Your task to perform on an android device: Add "logitech g903" to the cart on target Image 0: 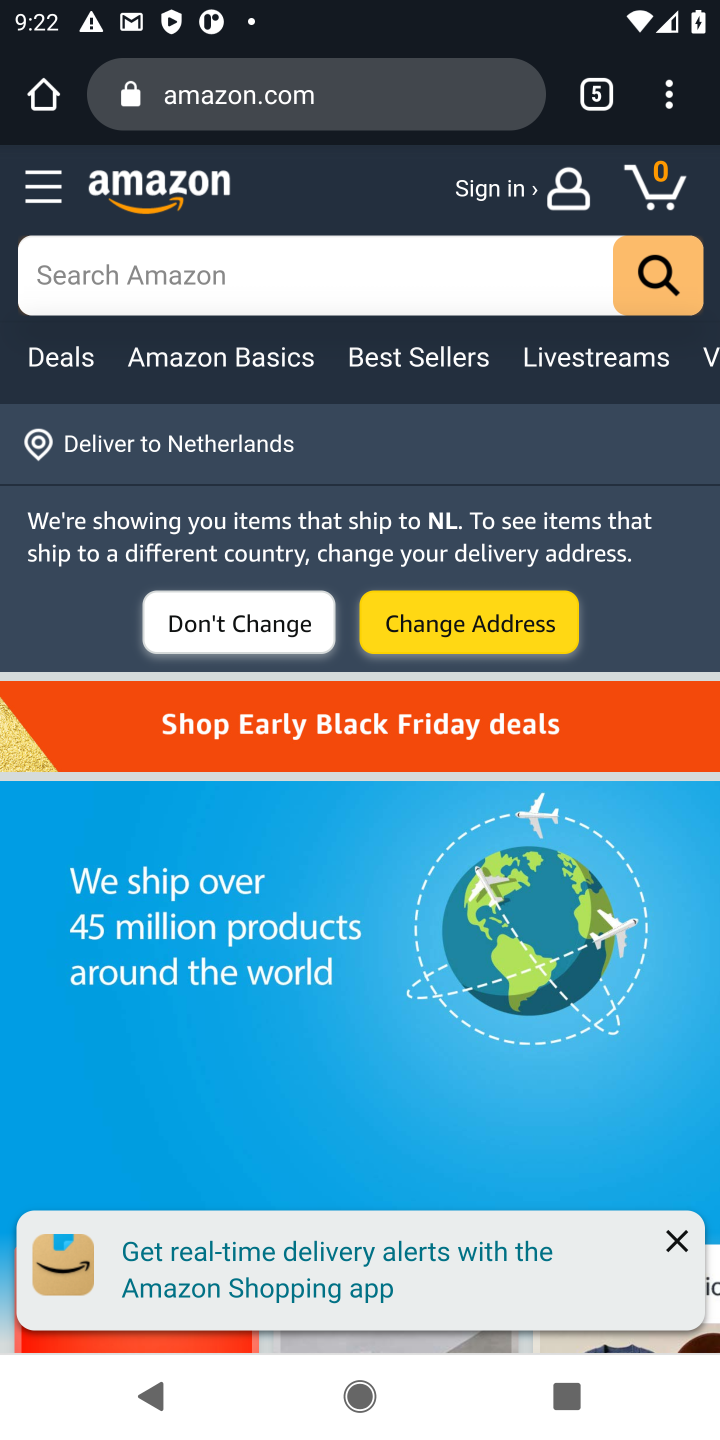
Step 0: press home button
Your task to perform on an android device: Add "logitech g903" to the cart on target Image 1: 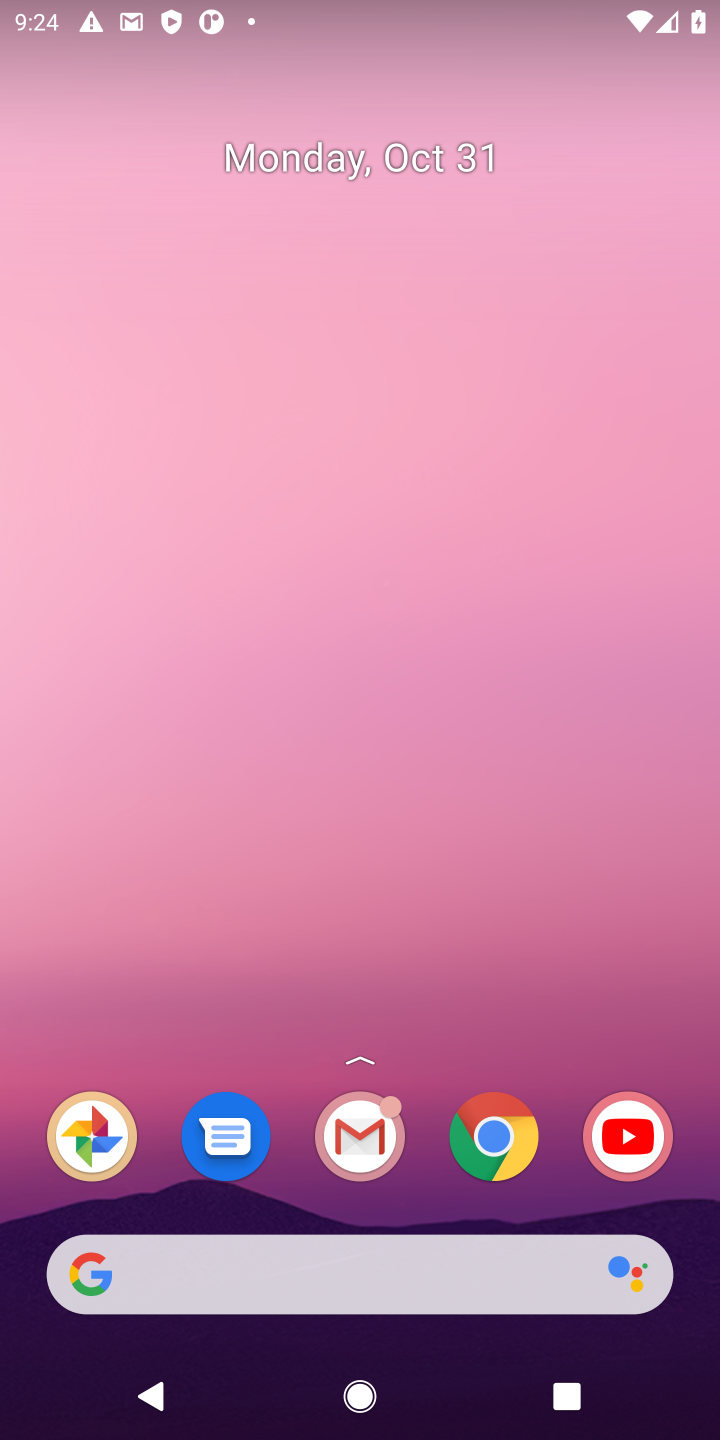
Step 1: click (84, 1275)
Your task to perform on an android device: Add "logitech g903" to the cart on target Image 2: 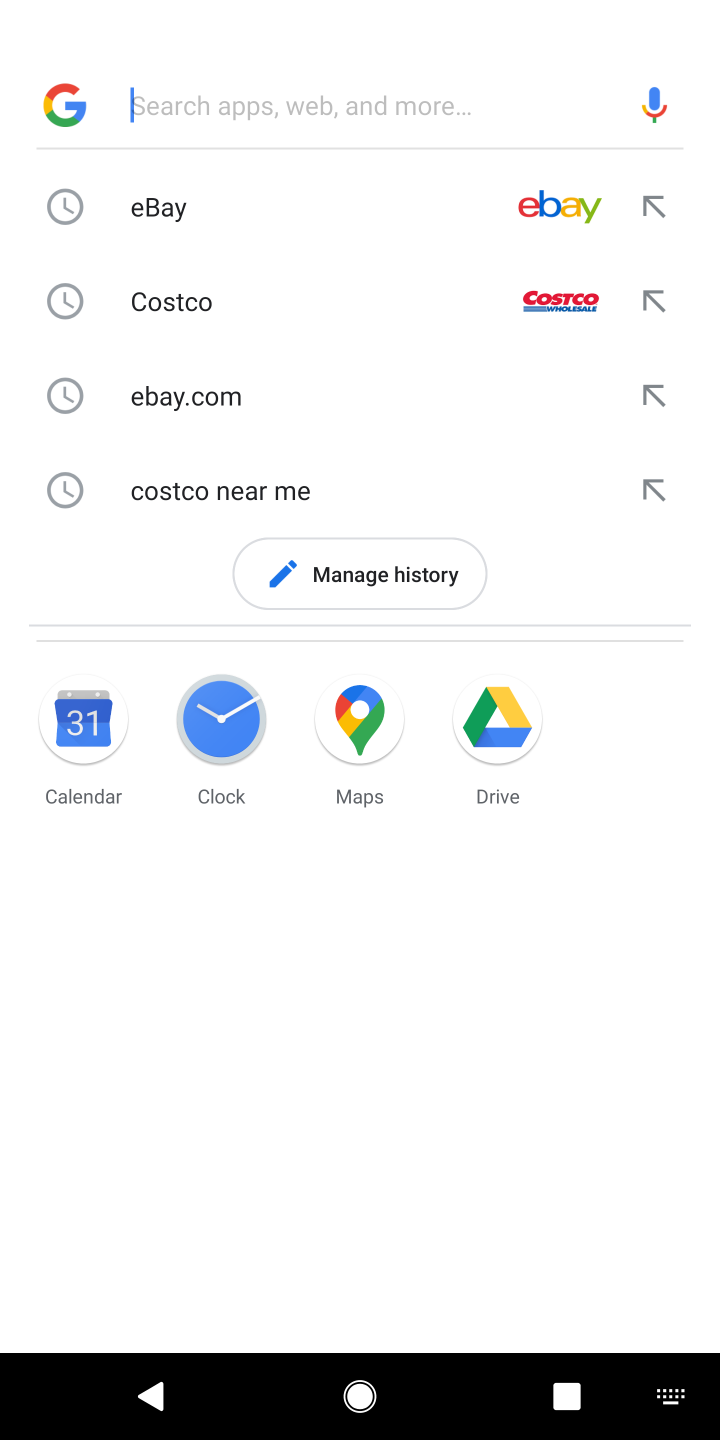
Step 2: type "target"
Your task to perform on an android device: Add "logitech g903" to the cart on target Image 3: 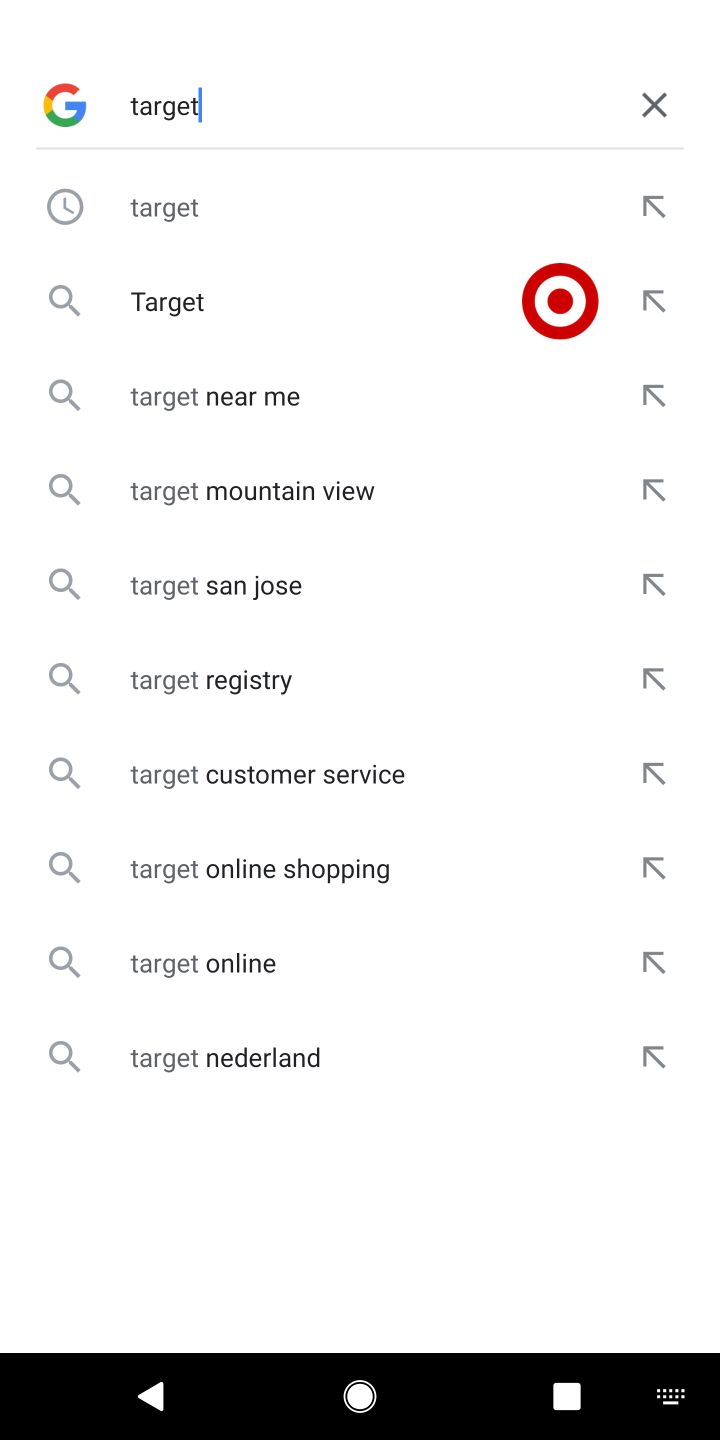
Step 3: click (192, 198)
Your task to perform on an android device: Add "logitech g903" to the cart on target Image 4: 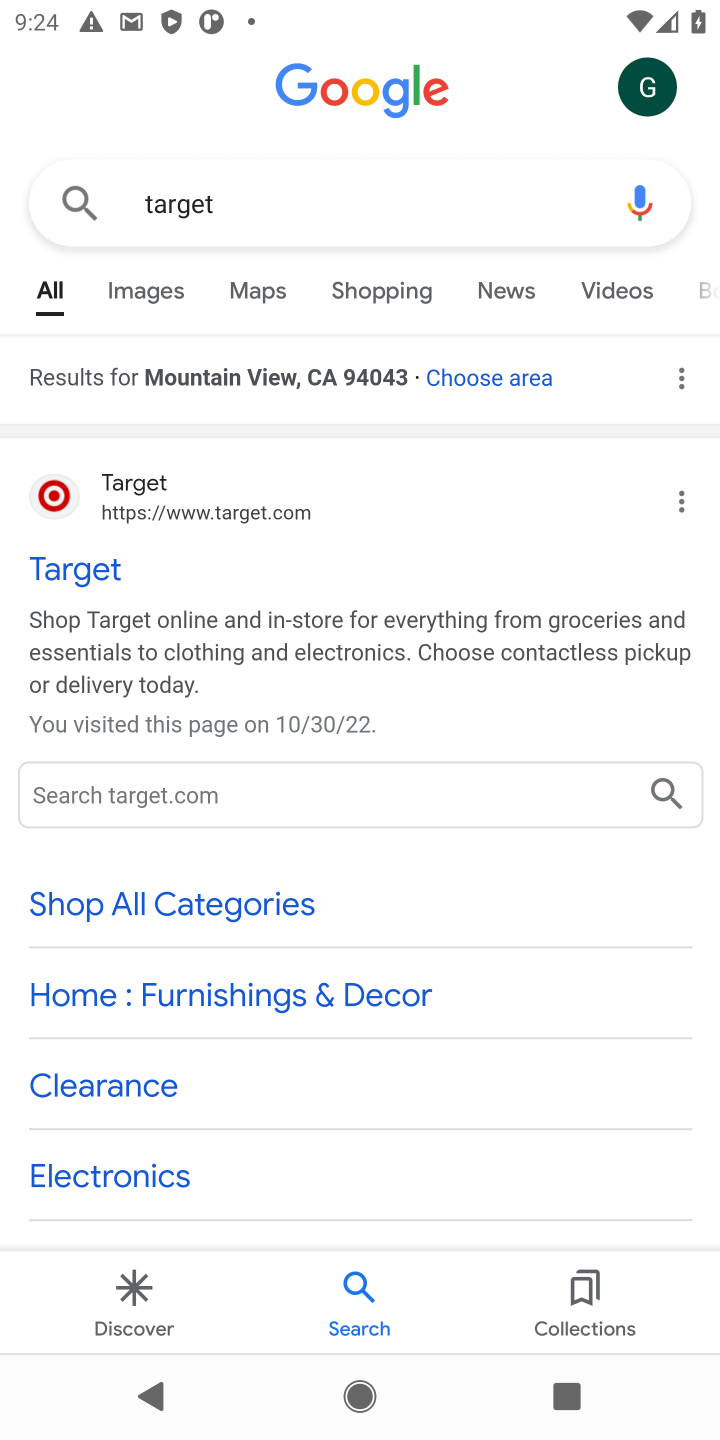
Step 4: click (95, 568)
Your task to perform on an android device: Add "logitech g903" to the cart on target Image 5: 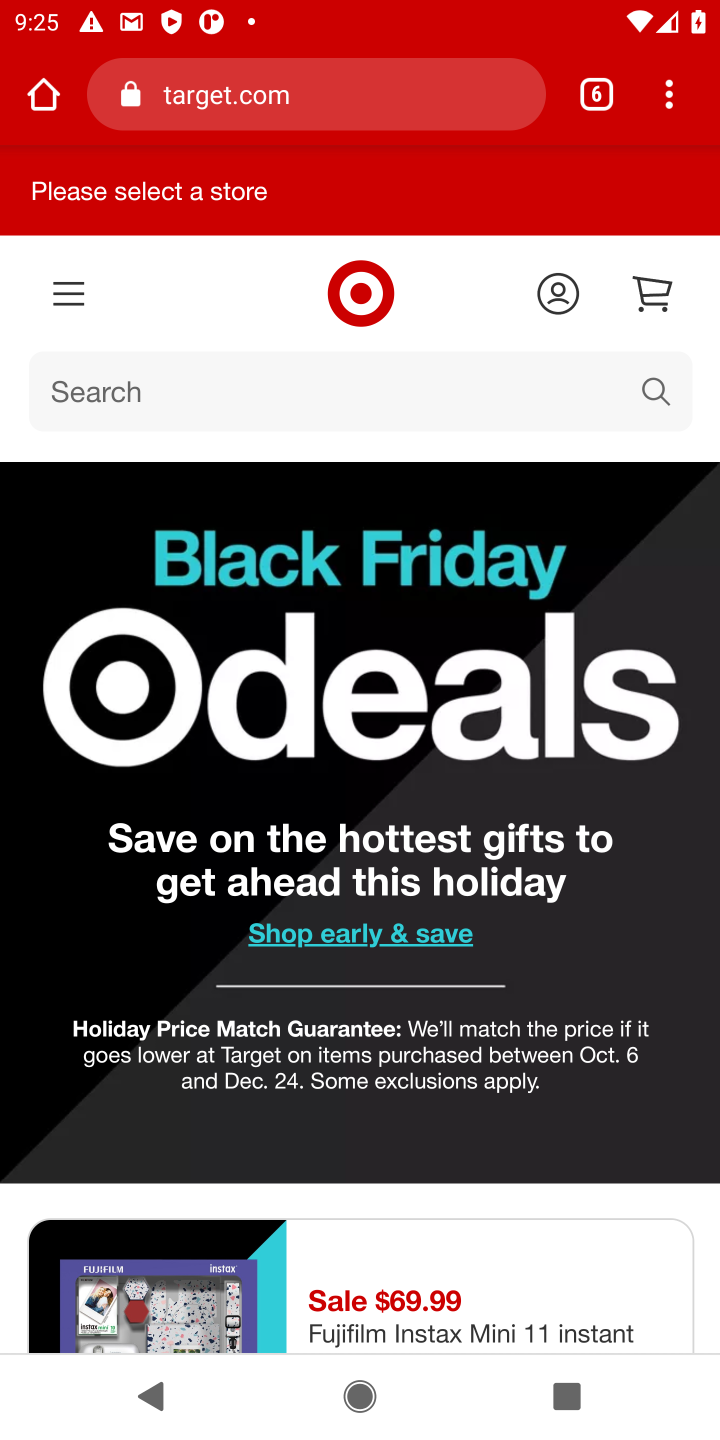
Step 5: click (384, 386)
Your task to perform on an android device: Add "logitech g903" to the cart on target Image 6: 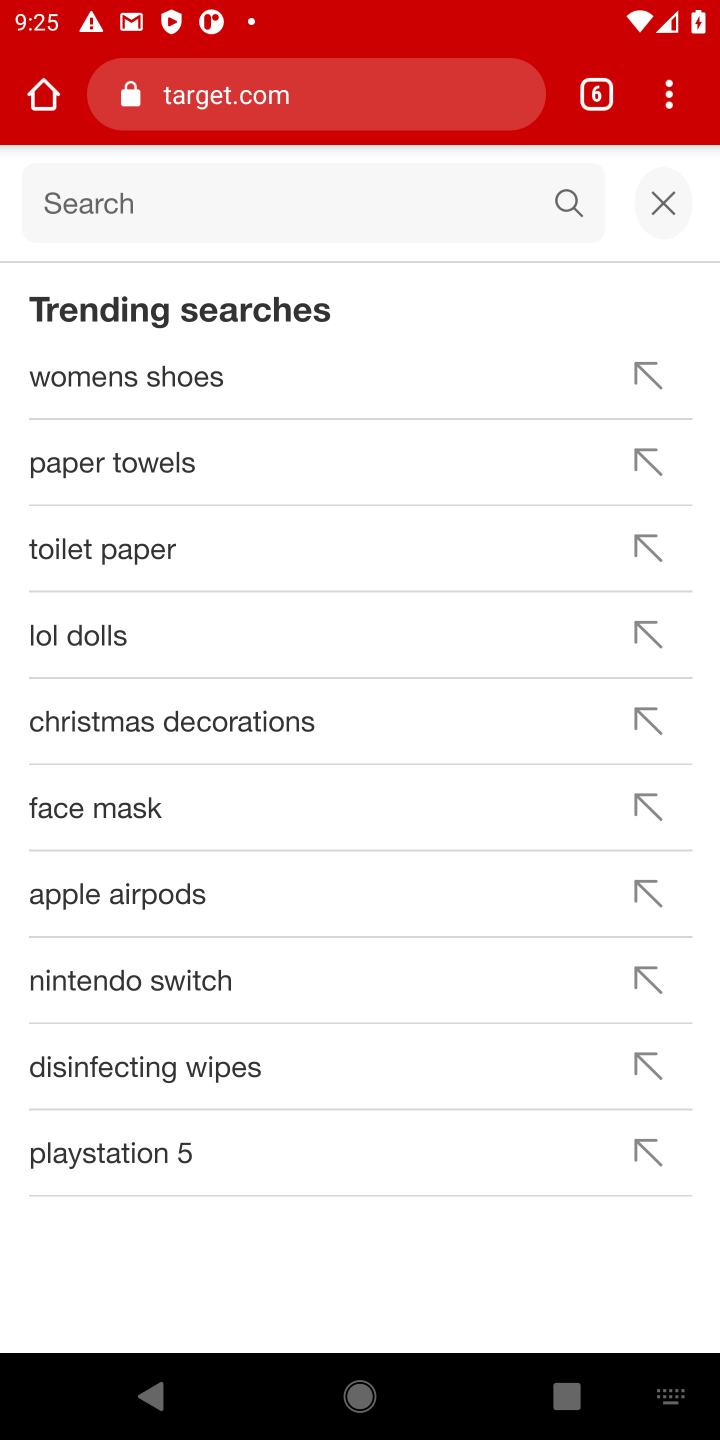
Step 6: type "logitech g903"
Your task to perform on an android device: Add "logitech g903" to the cart on target Image 7: 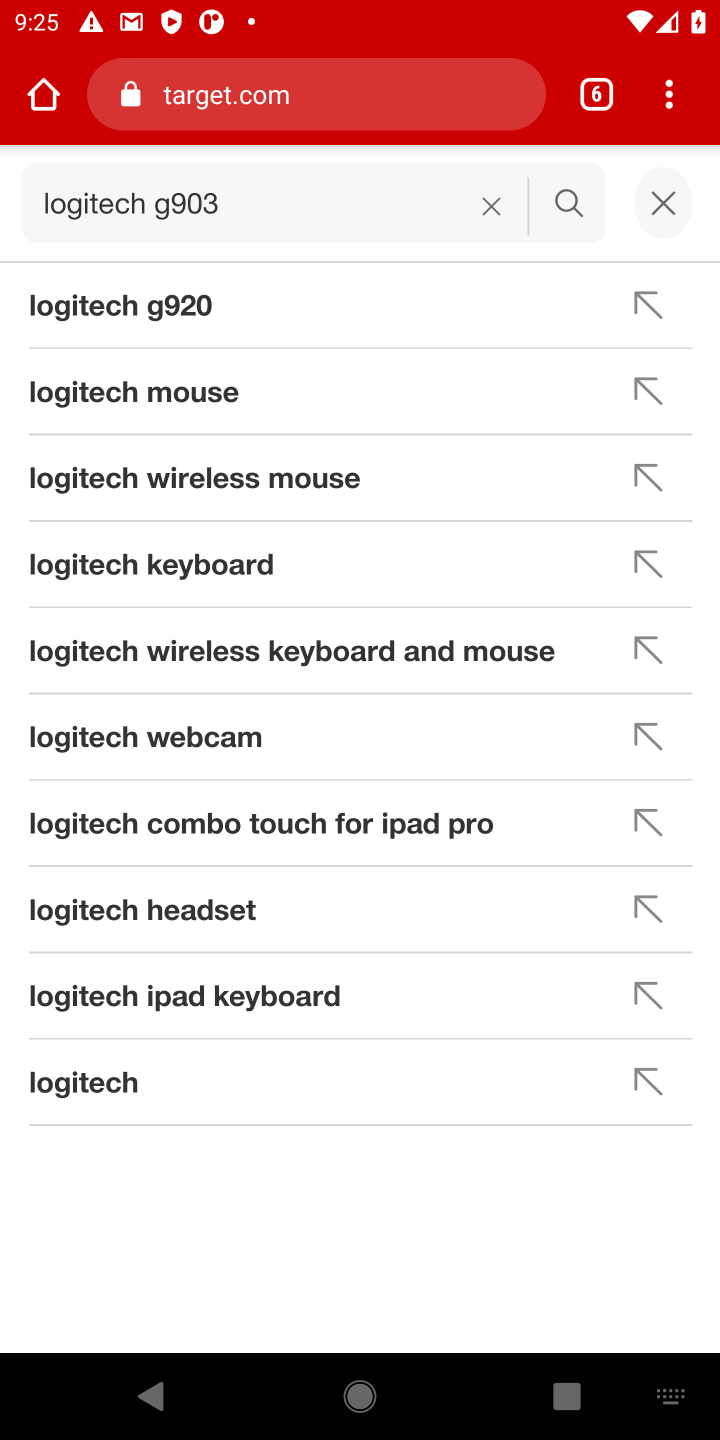
Step 7: task complete